Your task to perform on an android device: Show me productivity apps on the Play Store Image 0: 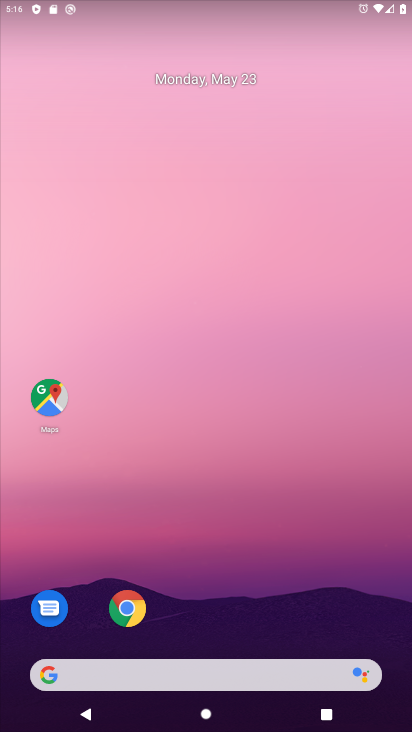
Step 0: drag from (231, 609) to (207, 149)
Your task to perform on an android device: Show me productivity apps on the Play Store Image 1: 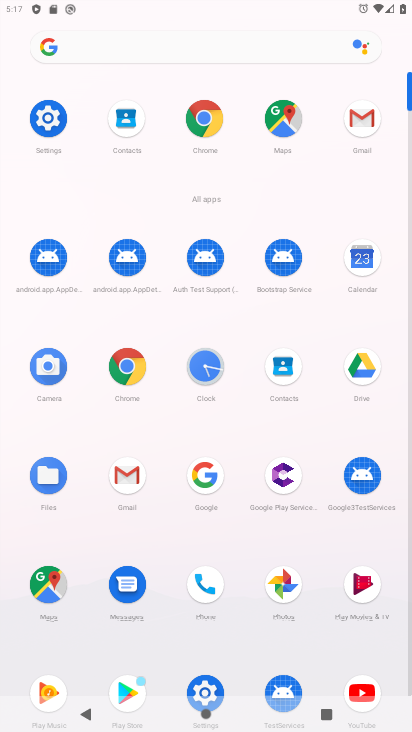
Step 1: click (123, 697)
Your task to perform on an android device: Show me productivity apps on the Play Store Image 2: 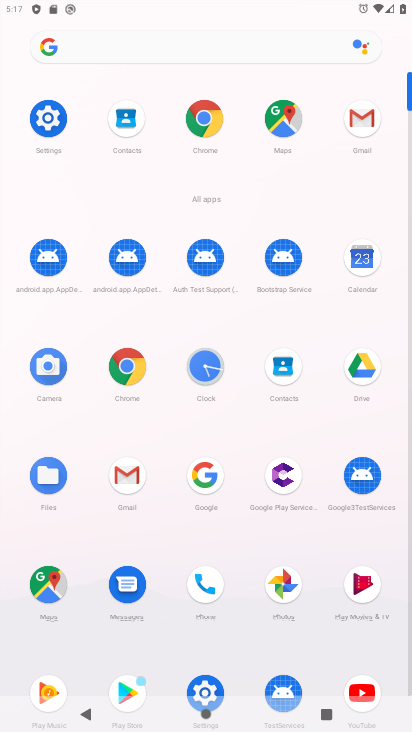
Step 2: click (123, 697)
Your task to perform on an android device: Show me productivity apps on the Play Store Image 3: 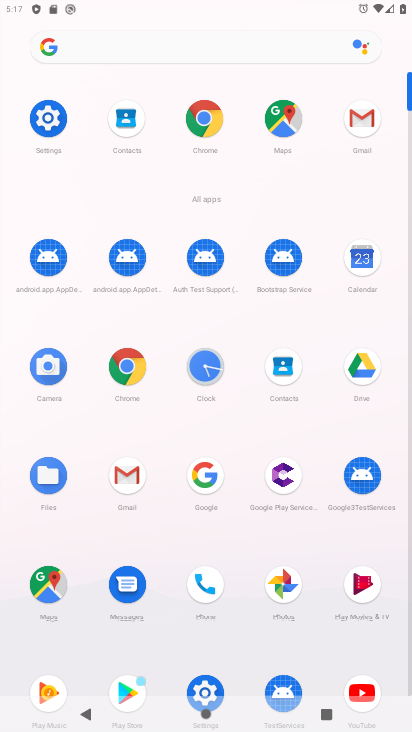
Step 3: click (128, 690)
Your task to perform on an android device: Show me productivity apps on the Play Store Image 4: 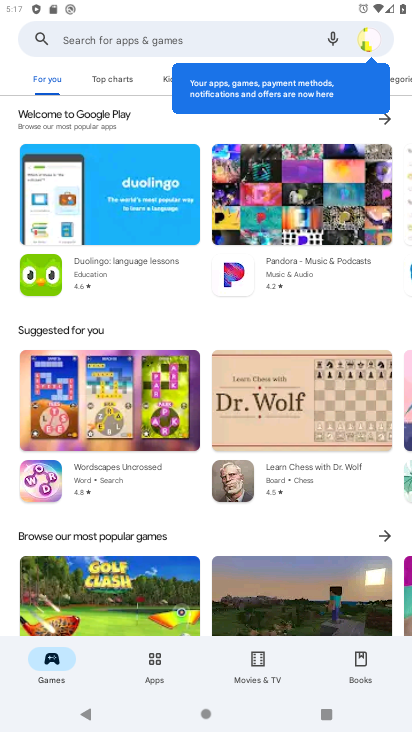
Step 4: click (223, 40)
Your task to perform on an android device: Show me productivity apps on the Play Store Image 5: 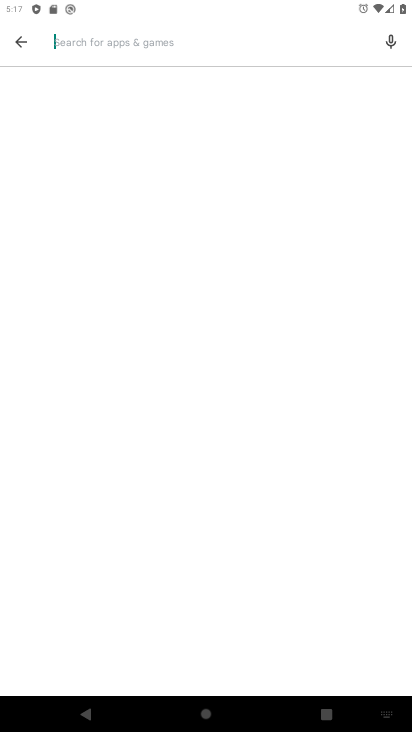
Step 5: click (18, 42)
Your task to perform on an android device: Show me productivity apps on the Play Store Image 6: 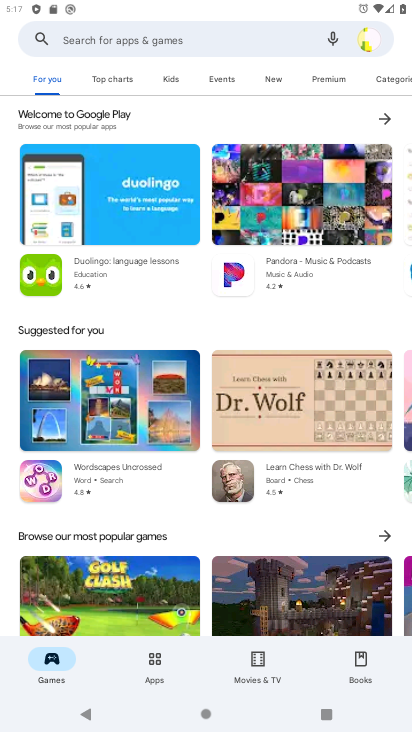
Step 6: click (389, 78)
Your task to perform on an android device: Show me productivity apps on the Play Store Image 7: 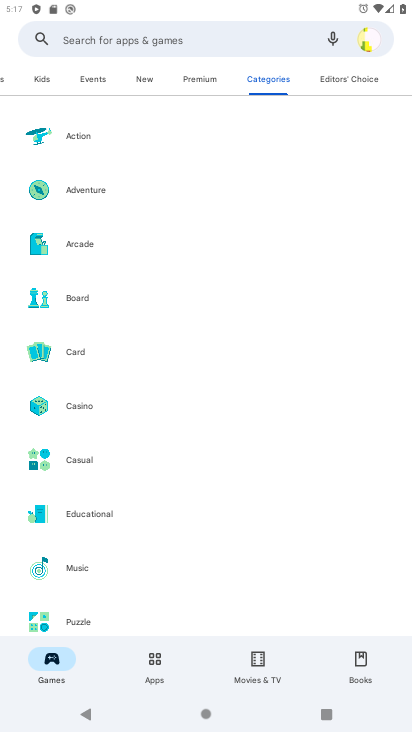
Step 7: drag from (181, 534) to (164, 223)
Your task to perform on an android device: Show me productivity apps on the Play Store Image 8: 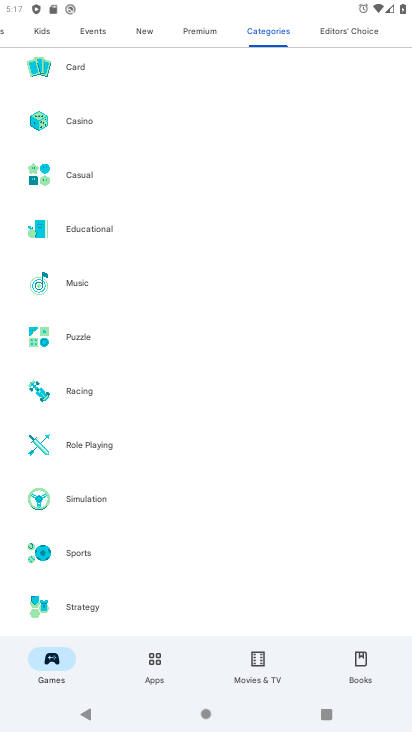
Step 8: drag from (113, 568) to (107, 363)
Your task to perform on an android device: Show me productivity apps on the Play Store Image 9: 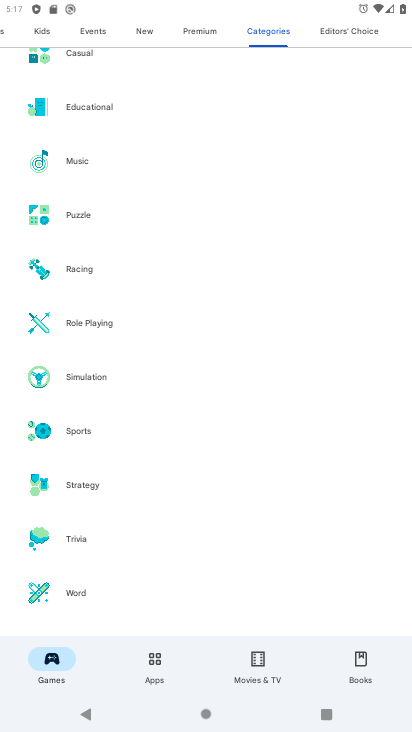
Step 9: drag from (134, 524) to (175, 267)
Your task to perform on an android device: Show me productivity apps on the Play Store Image 10: 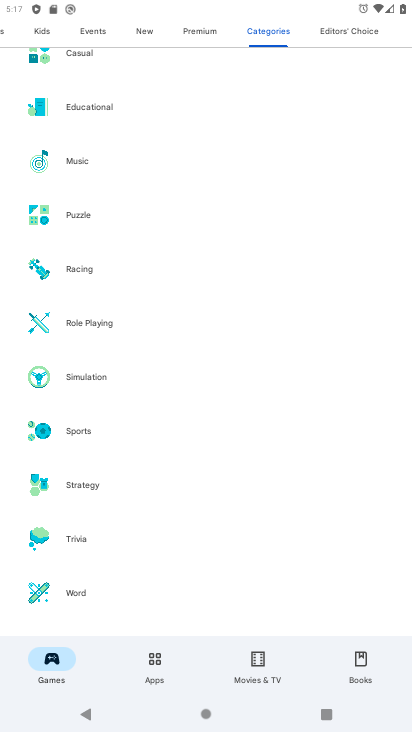
Step 10: drag from (164, 520) to (188, 226)
Your task to perform on an android device: Show me productivity apps on the Play Store Image 11: 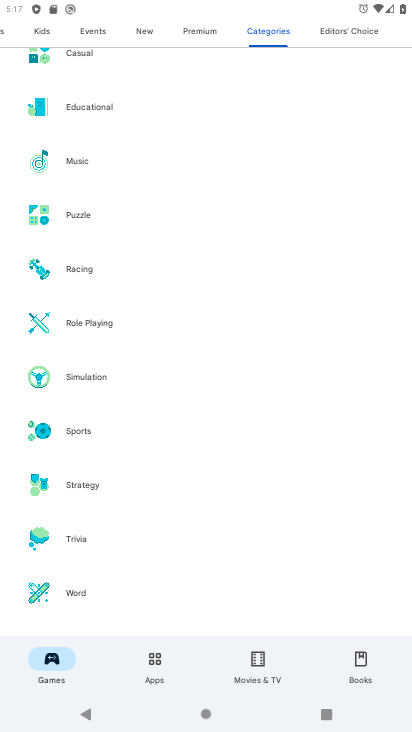
Step 11: drag from (164, 546) to (147, 140)
Your task to perform on an android device: Show me productivity apps on the Play Store Image 12: 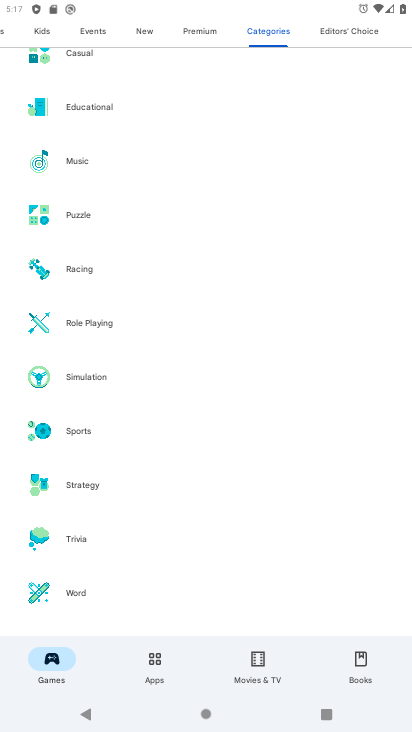
Step 12: drag from (145, 238) to (145, 519)
Your task to perform on an android device: Show me productivity apps on the Play Store Image 13: 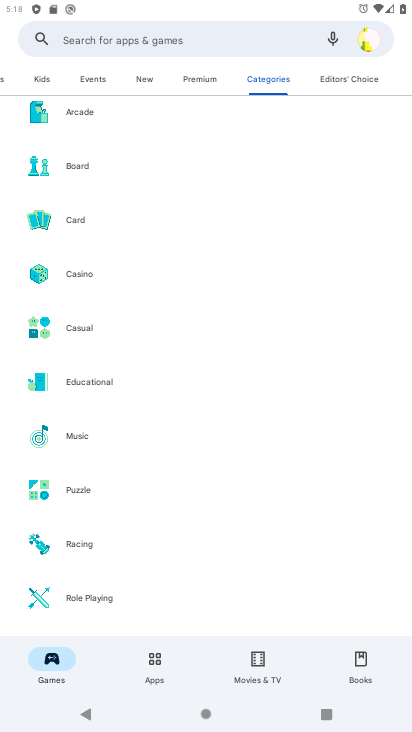
Step 13: drag from (151, 293) to (140, 497)
Your task to perform on an android device: Show me productivity apps on the Play Store Image 14: 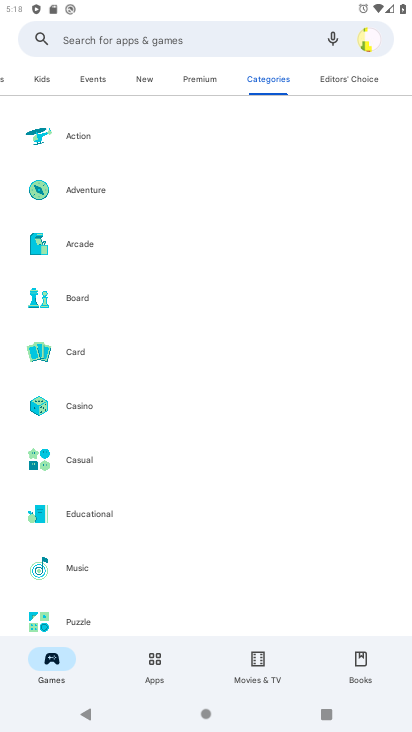
Step 14: drag from (163, 566) to (191, 169)
Your task to perform on an android device: Show me productivity apps on the Play Store Image 15: 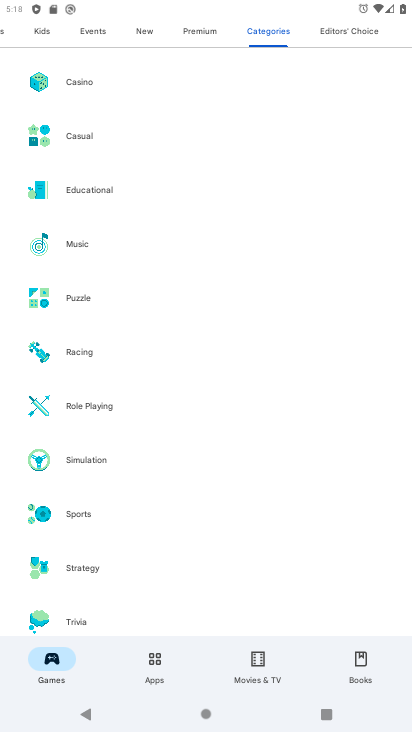
Step 15: drag from (120, 570) to (165, 301)
Your task to perform on an android device: Show me productivity apps on the Play Store Image 16: 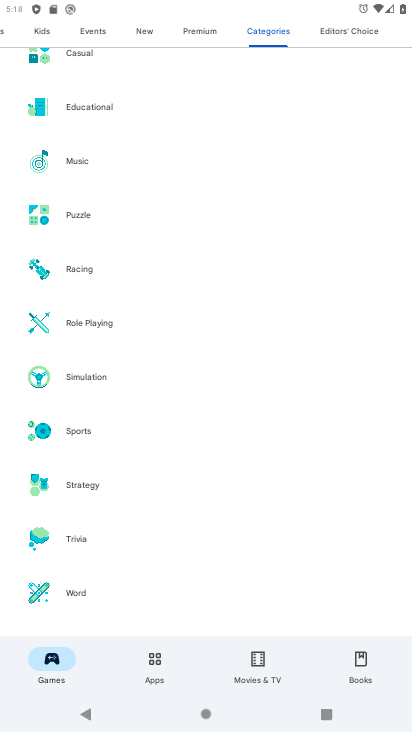
Step 16: drag from (203, 513) to (230, 192)
Your task to perform on an android device: Show me productivity apps on the Play Store Image 17: 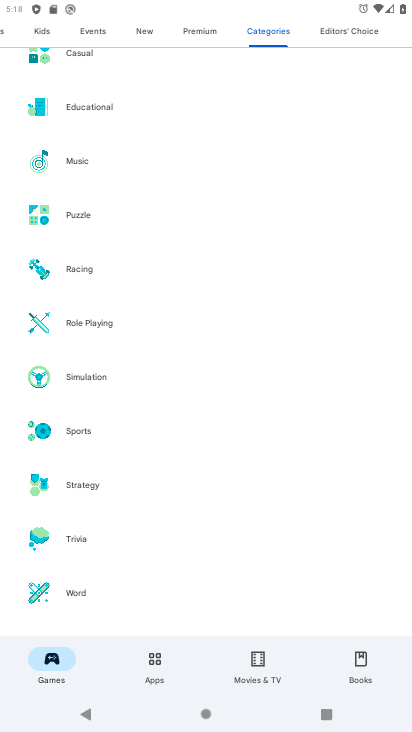
Step 17: drag from (153, 443) to (160, 225)
Your task to perform on an android device: Show me productivity apps on the Play Store Image 18: 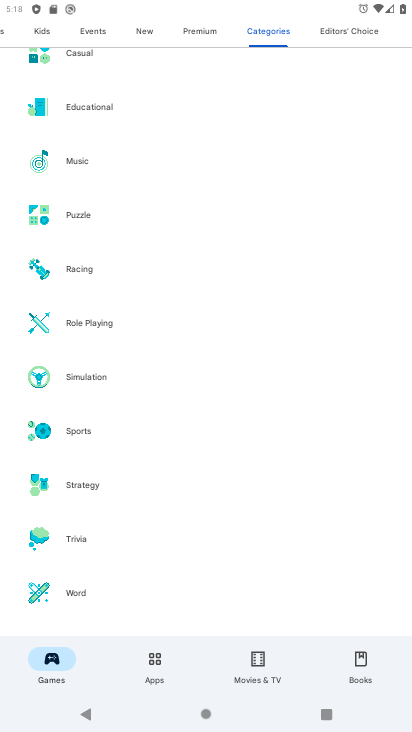
Step 18: drag from (94, 156) to (95, 321)
Your task to perform on an android device: Show me productivity apps on the Play Store Image 19: 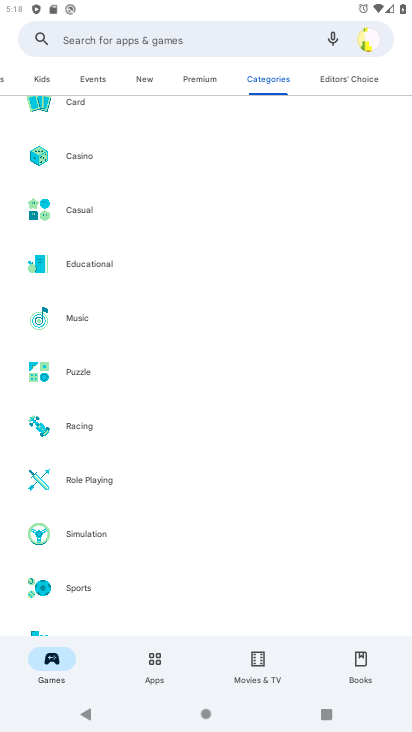
Step 19: drag from (181, 215) to (164, 435)
Your task to perform on an android device: Show me productivity apps on the Play Store Image 20: 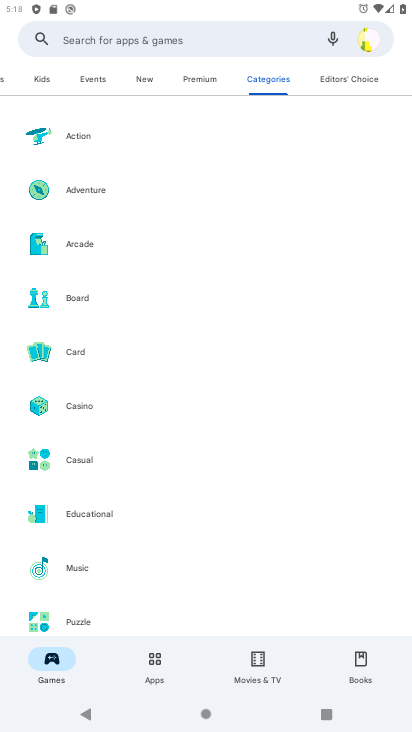
Step 20: click (155, 673)
Your task to perform on an android device: Show me productivity apps on the Play Store Image 21: 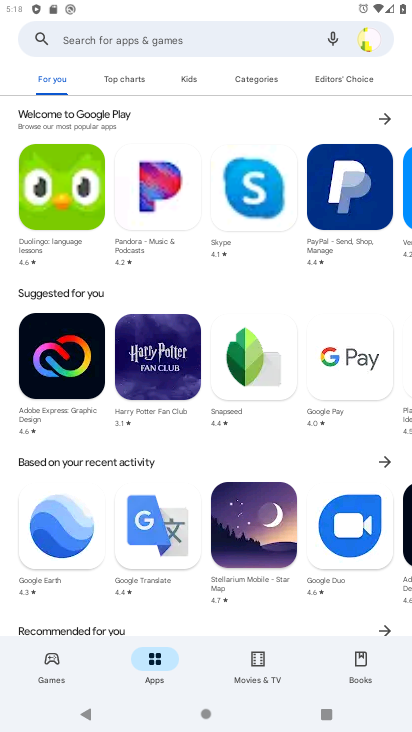
Step 21: click (257, 81)
Your task to perform on an android device: Show me productivity apps on the Play Store Image 22: 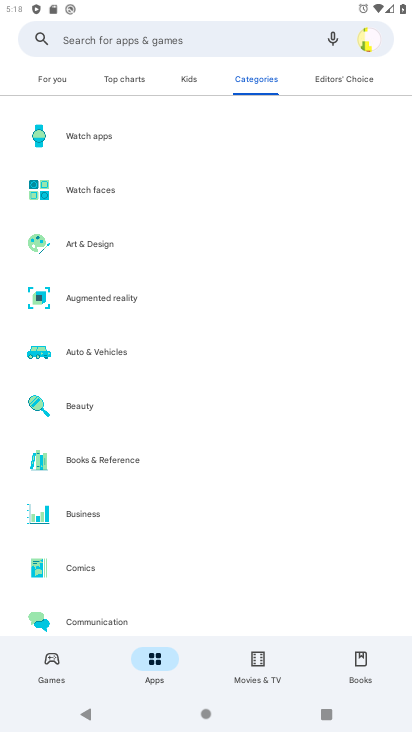
Step 22: drag from (134, 535) to (147, 268)
Your task to perform on an android device: Show me productivity apps on the Play Store Image 23: 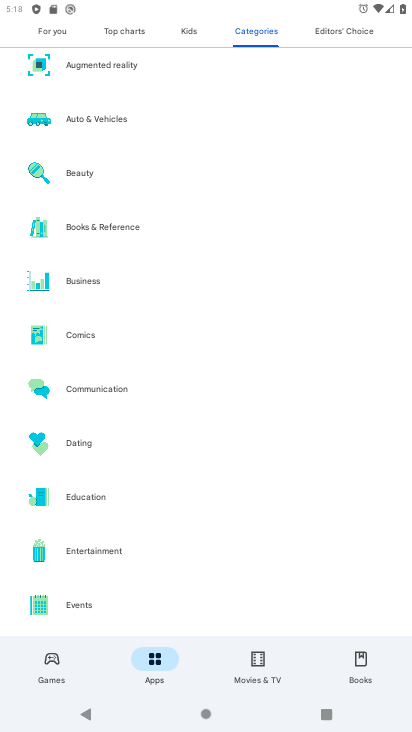
Step 23: drag from (93, 607) to (120, 396)
Your task to perform on an android device: Show me productivity apps on the Play Store Image 24: 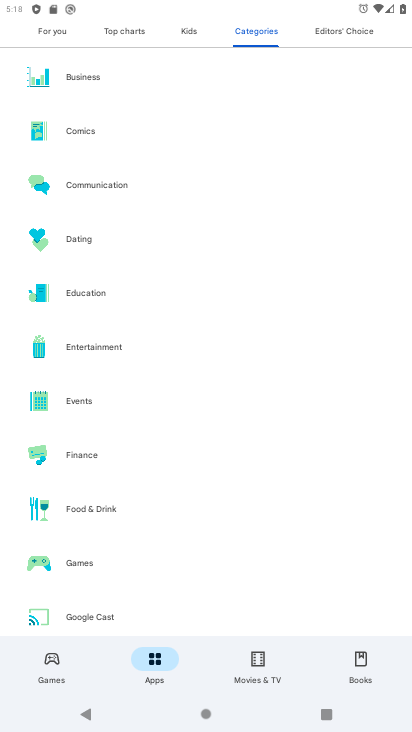
Step 24: drag from (104, 566) to (113, 301)
Your task to perform on an android device: Show me productivity apps on the Play Store Image 25: 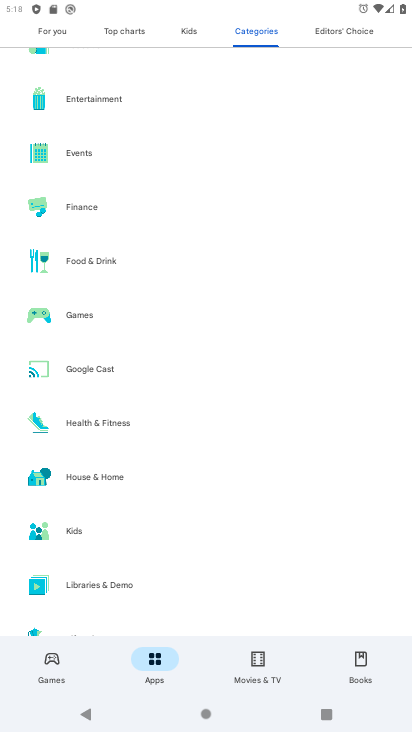
Step 25: drag from (114, 575) to (118, 388)
Your task to perform on an android device: Show me productivity apps on the Play Store Image 26: 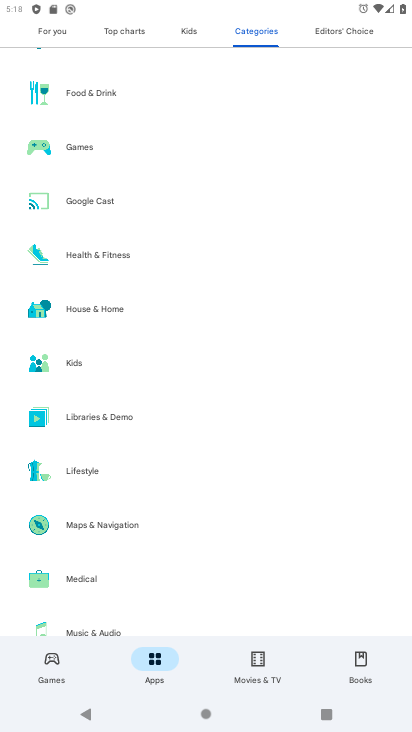
Step 26: drag from (123, 581) to (159, 317)
Your task to perform on an android device: Show me productivity apps on the Play Store Image 27: 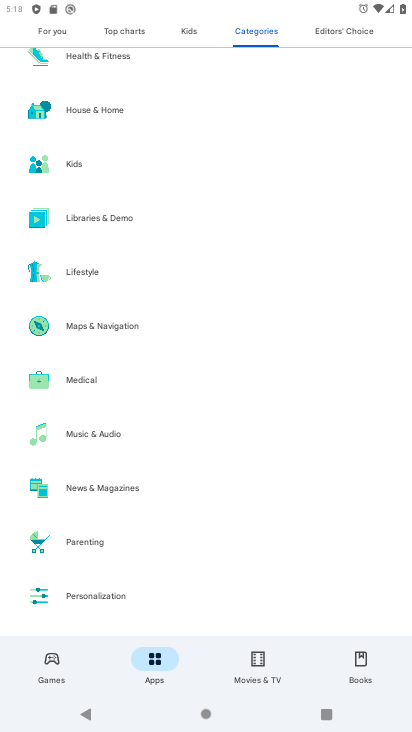
Step 27: drag from (160, 607) to (204, 374)
Your task to perform on an android device: Show me productivity apps on the Play Store Image 28: 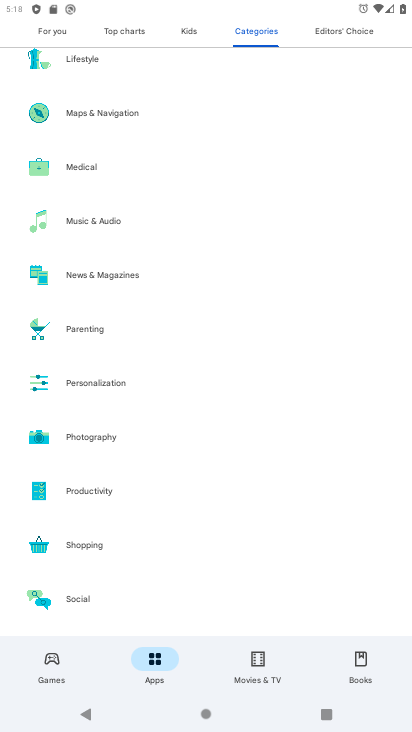
Step 28: click (89, 484)
Your task to perform on an android device: Show me productivity apps on the Play Store Image 29: 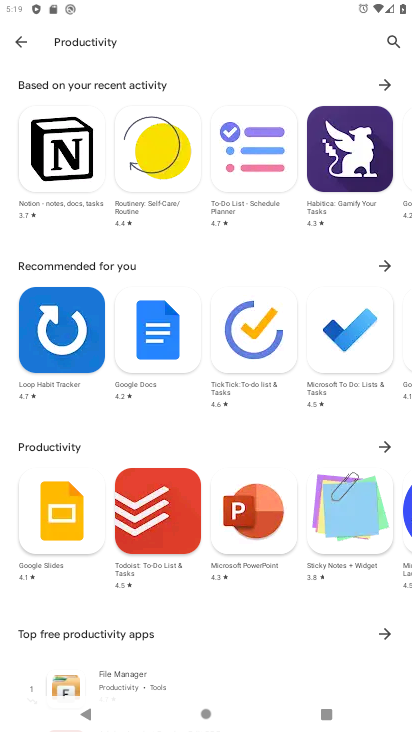
Step 29: task complete